Your task to perform on an android device: remove spam from my inbox in the gmail app Image 0: 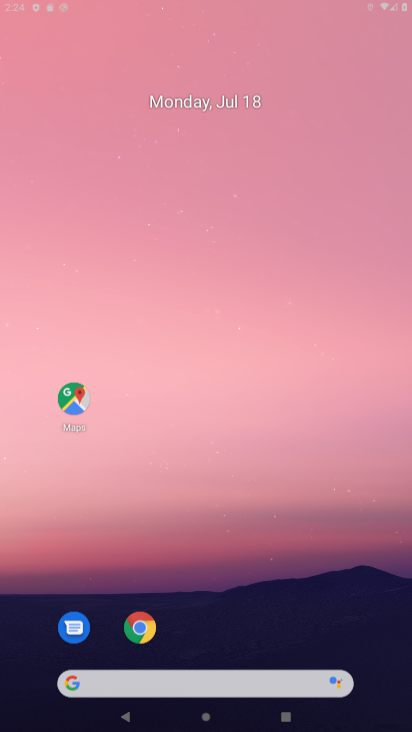
Step 0: press home button
Your task to perform on an android device: remove spam from my inbox in the gmail app Image 1: 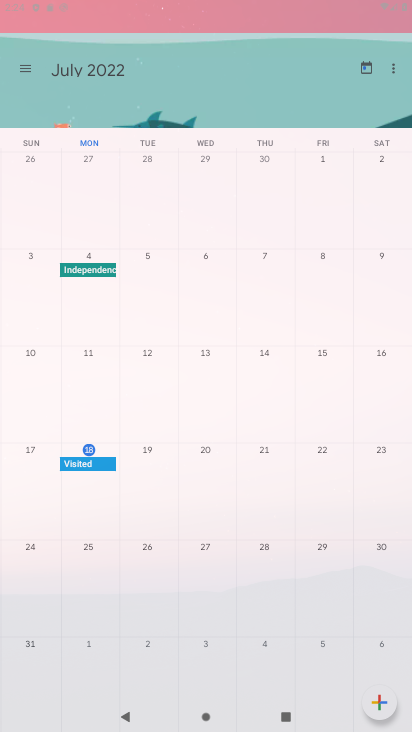
Step 1: drag from (195, 639) to (219, 231)
Your task to perform on an android device: remove spam from my inbox in the gmail app Image 2: 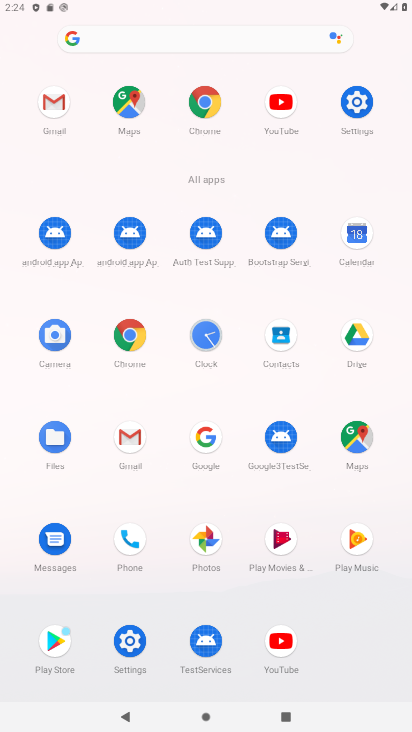
Step 2: press home button
Your task to perform on an android device: remove spam from my inbox in the gmail app Image 3: 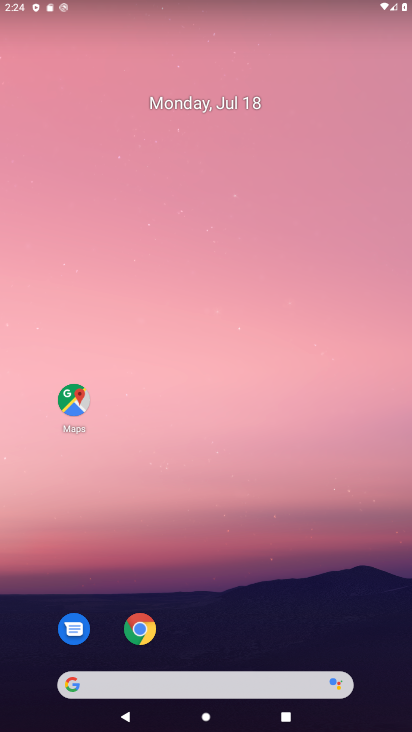
Step 3: drag from (182, 645) to (204, 269)
Your task to perform on an android device: remove spam from my inbox in the gmail app Image 4: 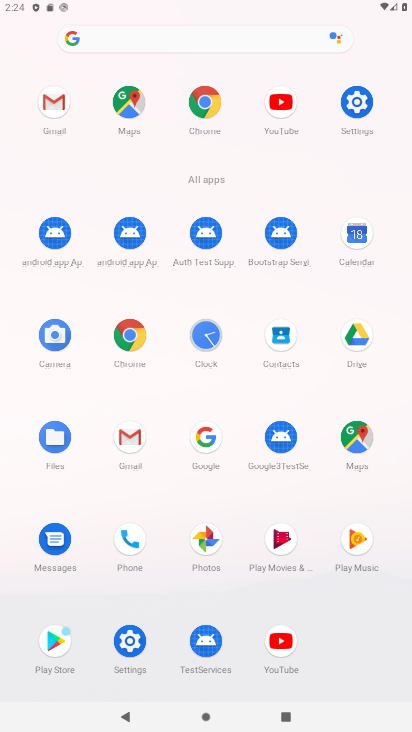
Step 4: click (133, 434)
Your task to perform on an android device: remove spam from my inbox in the gmail app Image 5: 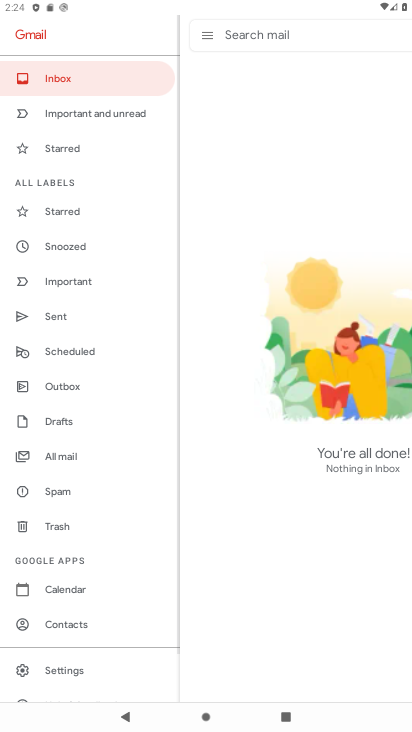
Step 5: click (46, 496)
Your task to perform on an android device: remove spam from my inbox in the gmail app Image 6: 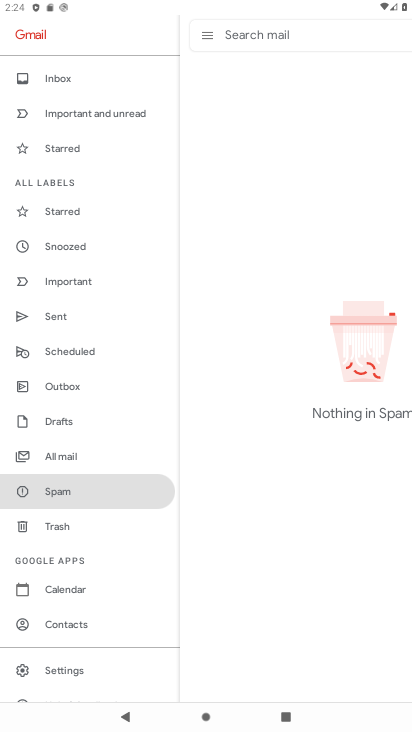
Step 6: task complete